Your task to perform on an android device: change the clock display to analog Image 0: 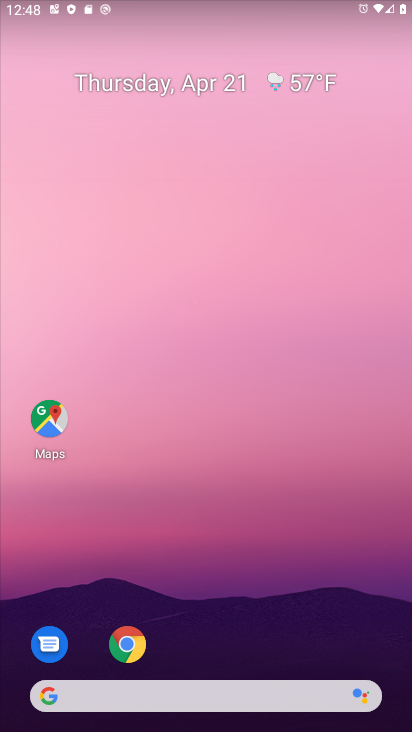
Step 0: drag from (208, 679) to (152, 50)
Your task to perform on an android device: change the clock display to analog Image 1: 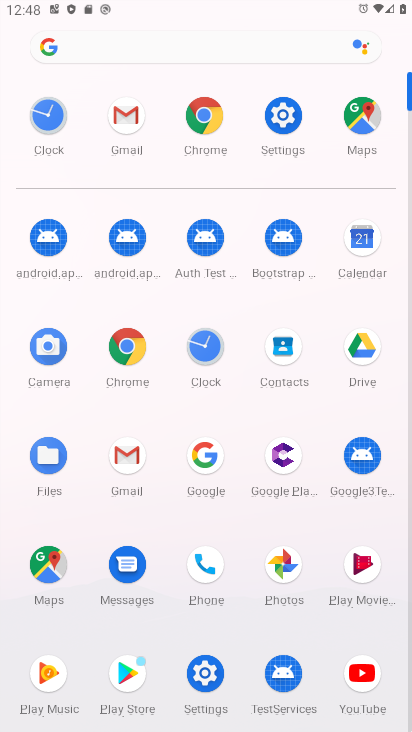
Step 1: click (210, 343)
Your task to perform on an android device: change the clock display to analog Image 2: 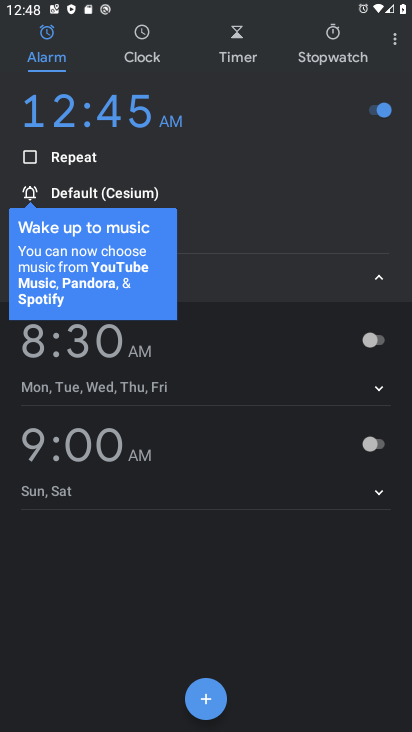
Step 2: click (387, 51)
Your task to perform on an android device: change the clock display to analog Image 3: 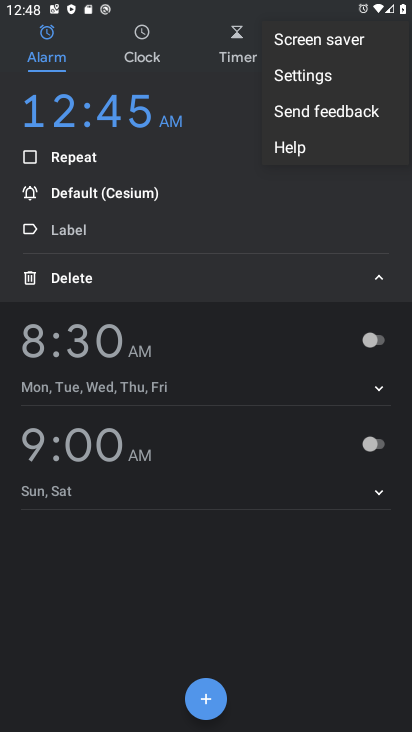
Step 3: click (319, 80)
Your task to perform on an android device: change the clock display to analog Image 4: 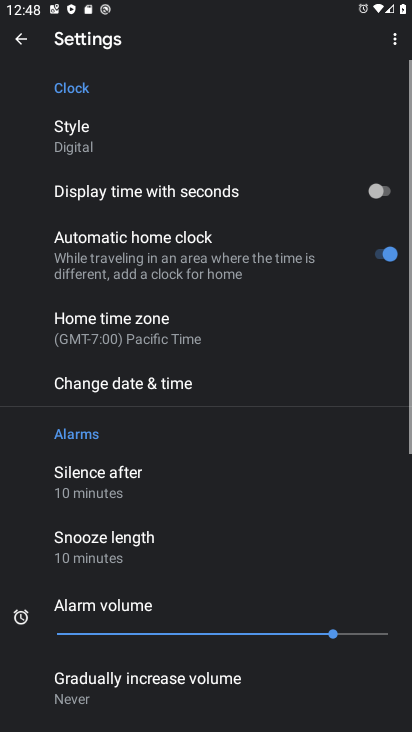
Step 4: click (93, 151)
Your task to perform on an android device: change the clock display to analog Image 5: 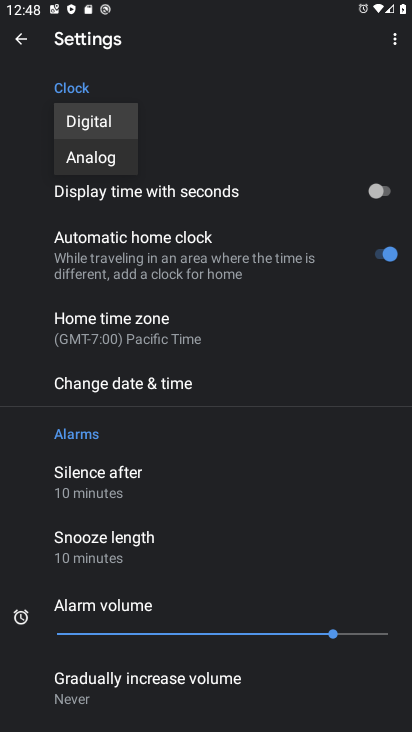
Step 5: click (98, 152)
Your task to perform on an android device: change the clock display to analog Image 6: 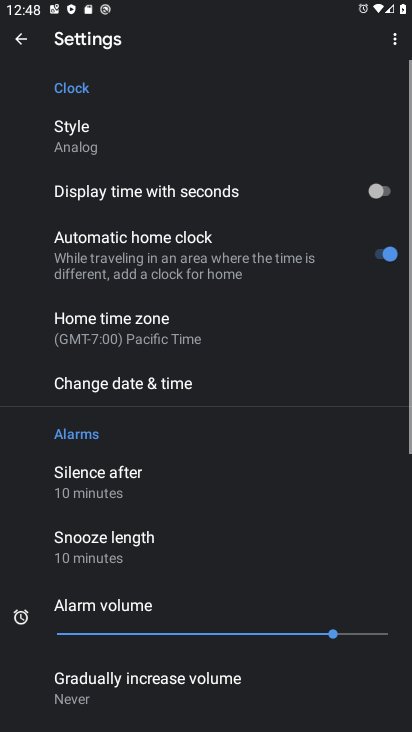
Step 6: task complete